Your task to perform on an android device: turn off picture-in-picture Image 0: 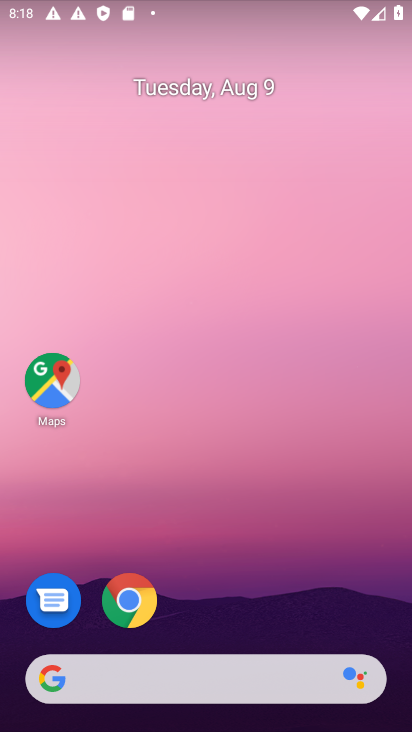
Step 0: press home button
Your task to perform on an android device: turn off picture-in-picture Image 1: 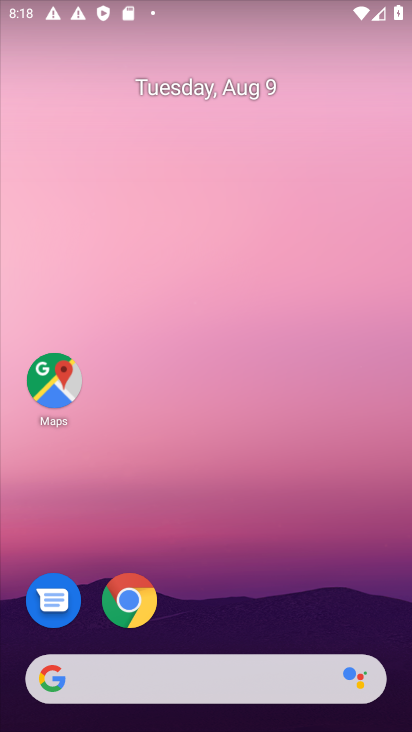
Step 1: click (121, 600)
Your task to perform on an android device: turn off picture-in-picture Image 2: 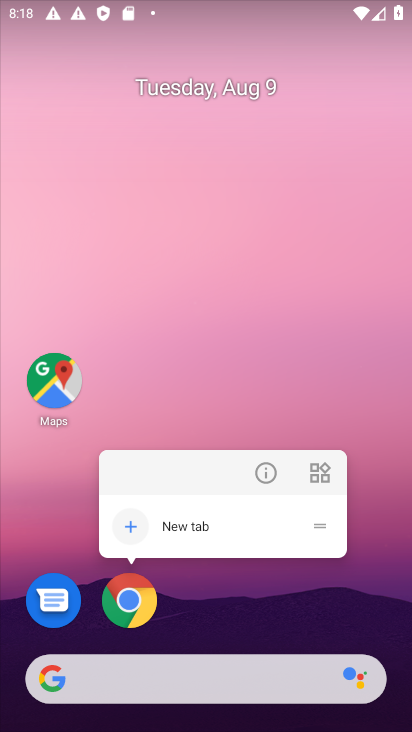
Step 2: click (268, 472)
Your task to perform on an android device: turn off picture-in-picture Image 3: 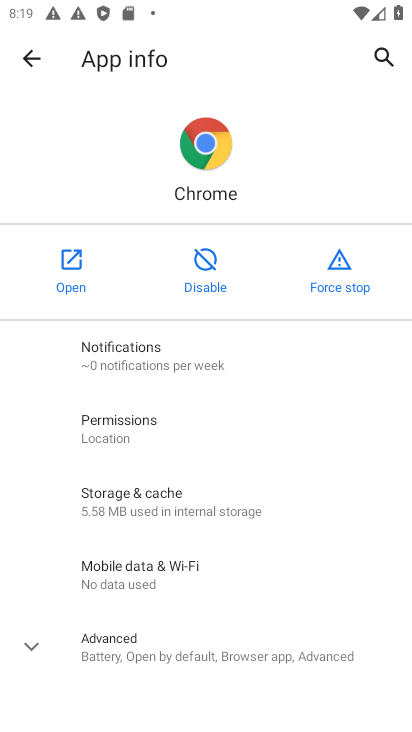
Step 3: drag from (263, 523) to (264, 197)
Your task to perform on an android device: turn off picture-in-picture Image 4: 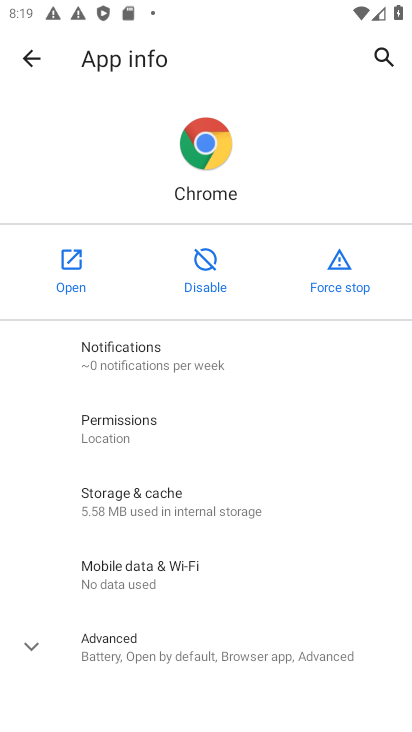
Step 4: click (95, 652)
Your task to perform on an android device: turn off picture-in-picture Image 5: 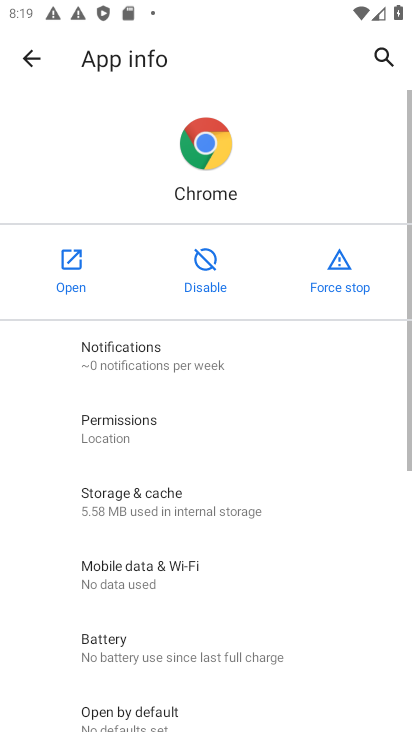
Step 5: drag from (335, 672) to (369, 238)
Your task to perform on an android device: turn off picture-in-picture Image 6: 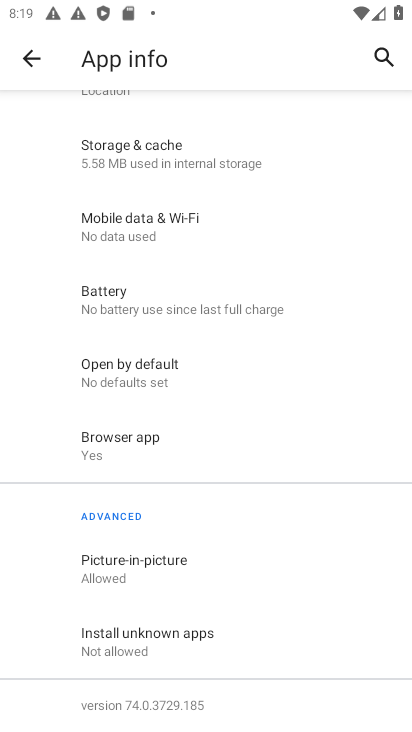
Step 6: click (117, 563)
Your task to perform on an android device: turn off picture-in-picture Image 7: 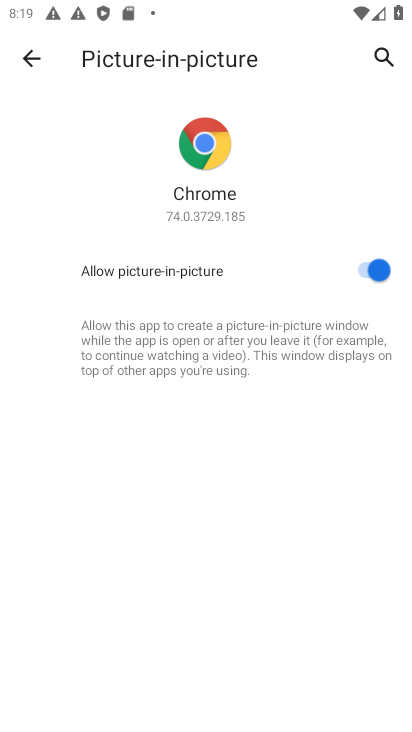
Step 7: click (365, 268)
Your task to perform on an android device: turn off picture-in-picture Image 8: 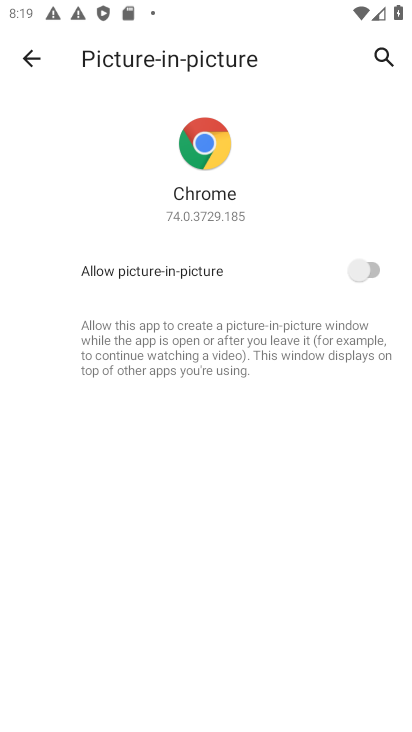
Step 8: task complete